Your task to perform on an android device: Go to Google Image 0: 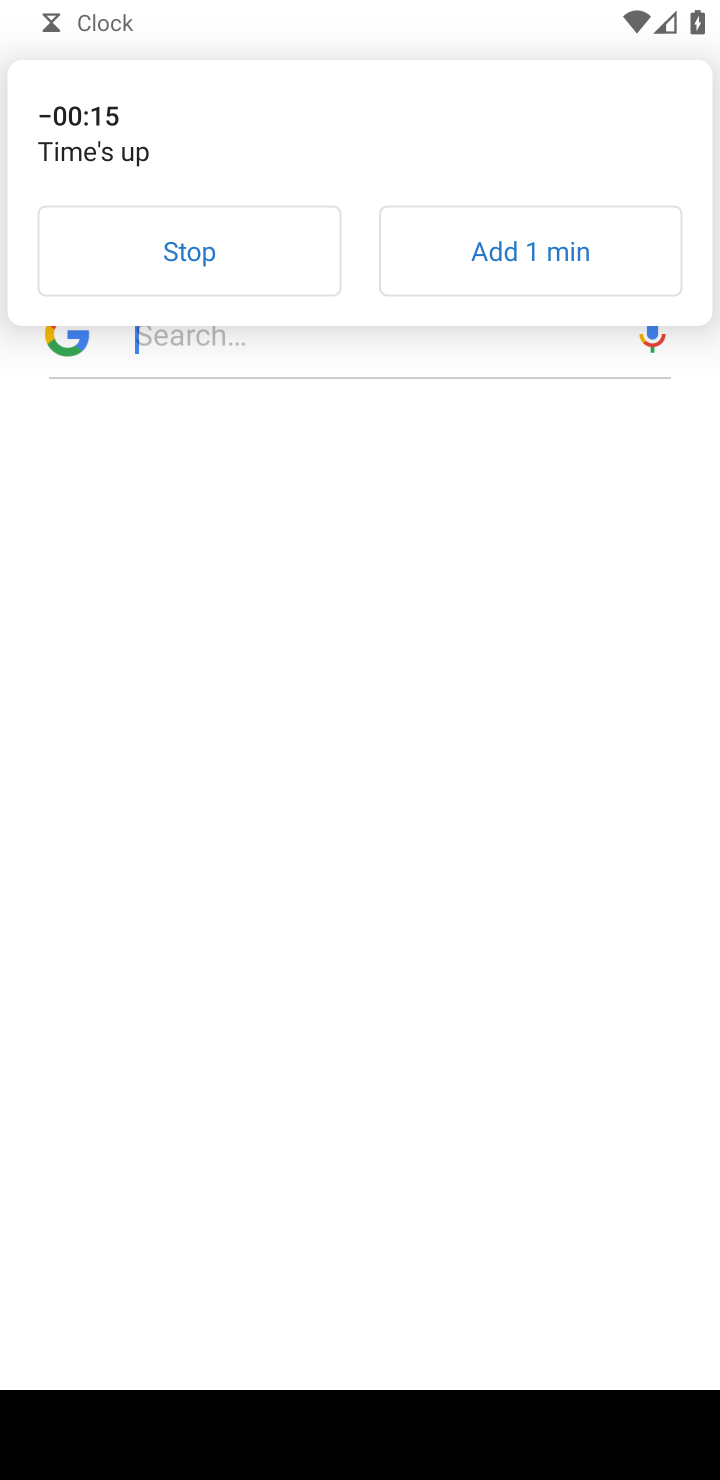
Step 0: click (251, 239)
Your task to perform on an android device: Go to Google Image 1: 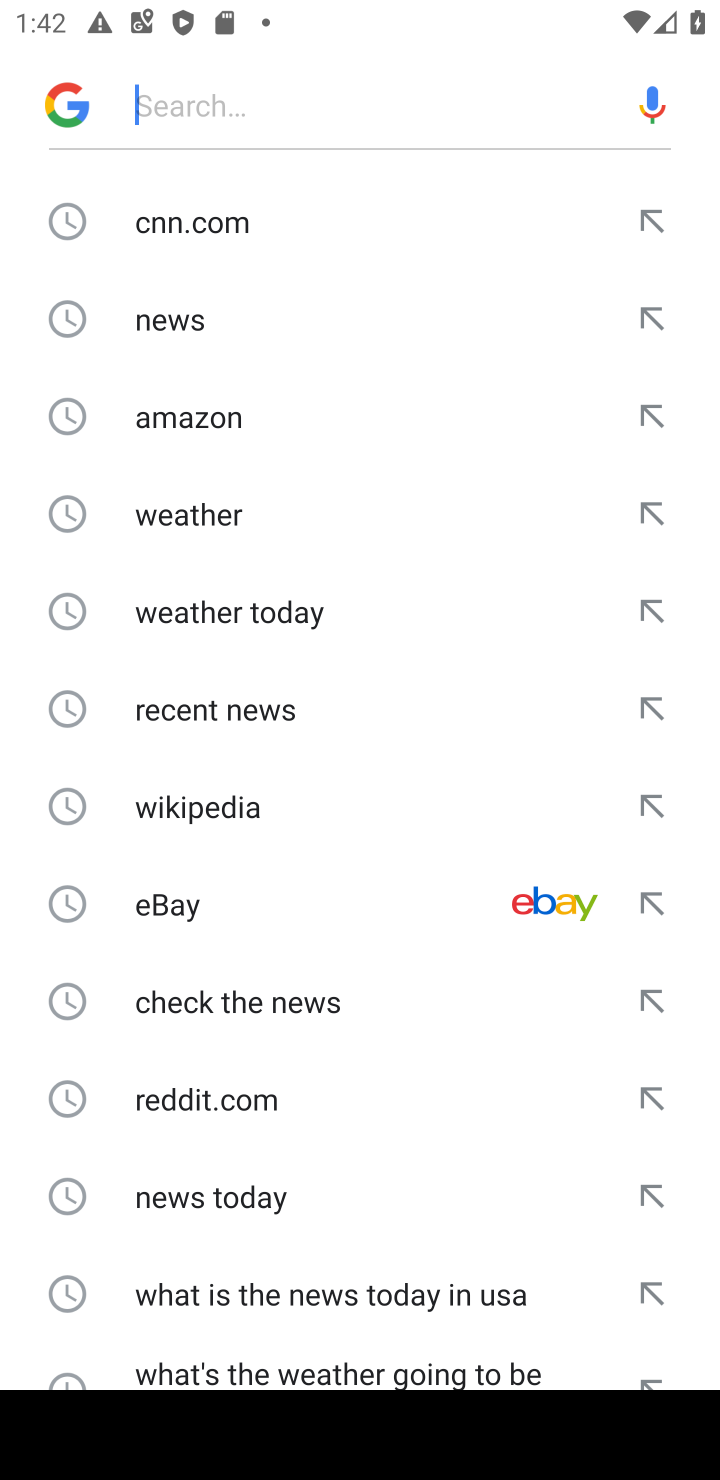
Step 1: task complete